Your task to perform on an android device: Open network settings Image 0: 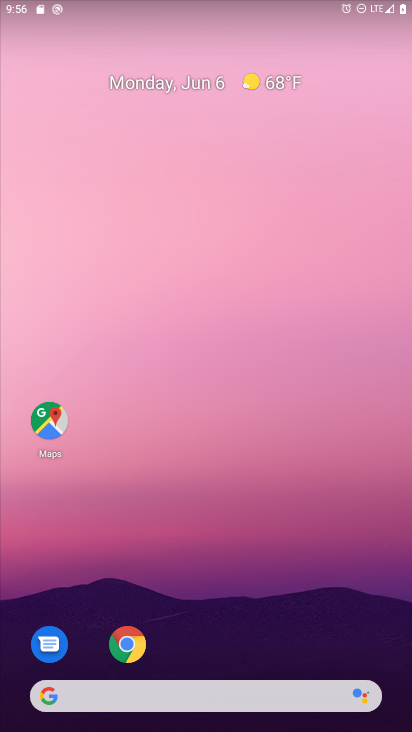
Step 0: drag from (253, 706) to (311, 133)
Your task to perform on an android device: Open network settings Image 1: 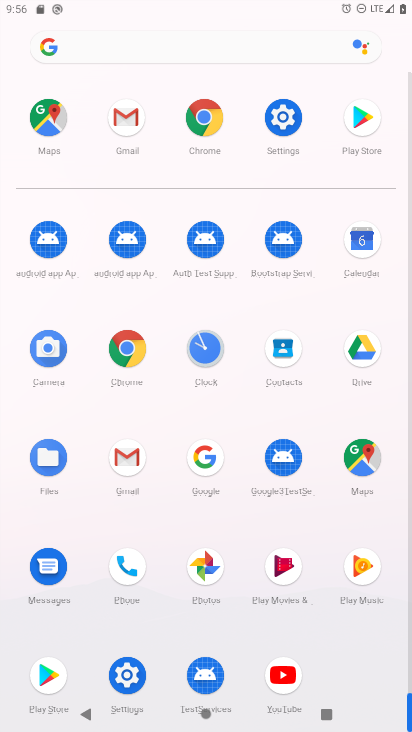
Step 1: click (280, 116)
Your task to perform on an android device: Open network settings Image 2: 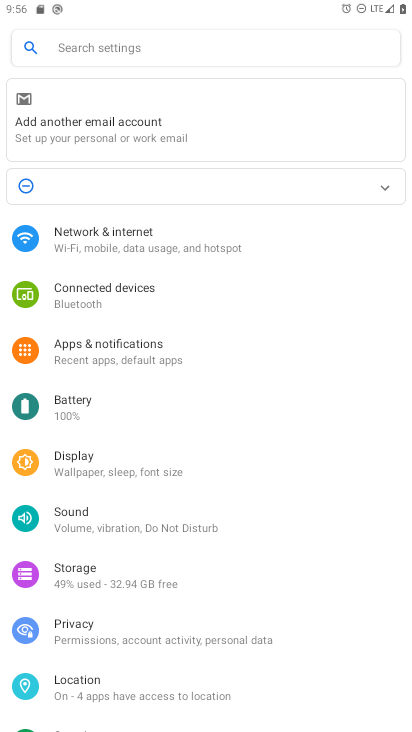
Step 2: click (173, 44)
Your task to perform on an android device: Open network settings Image 3: 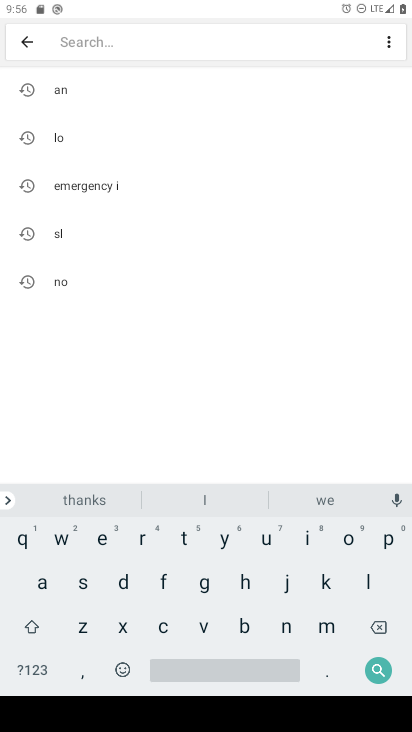
Step 3: click (15, 48)
Your task to perform on an android device: Open network settings Image 4: 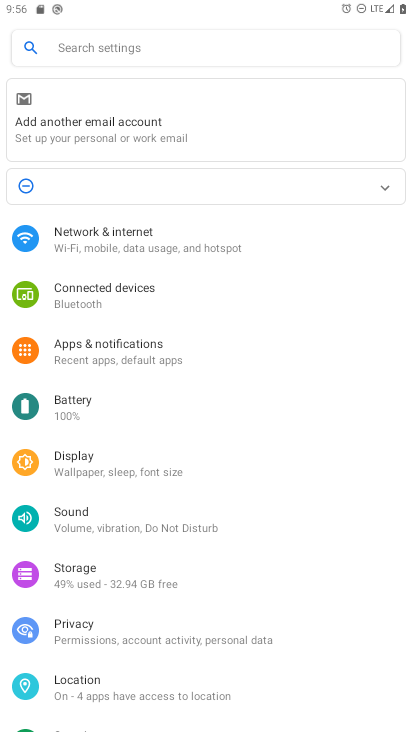
Step 4: click (138, 239)
Your task to perform on an android device: Open network settings Image 5: 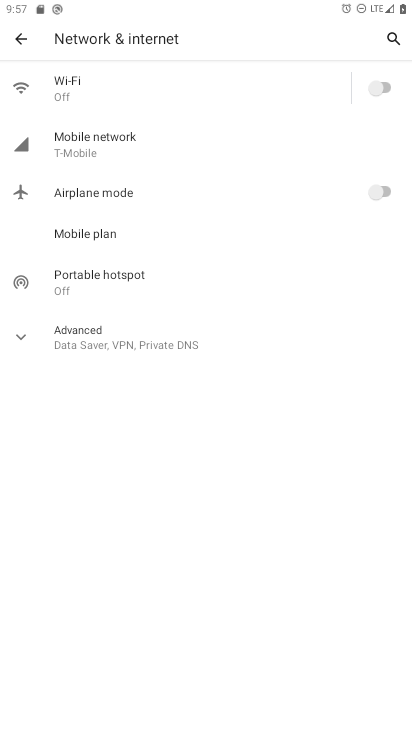
Step 5: task complete